Your task to perform on an android device: What is the recent news? Image 0: 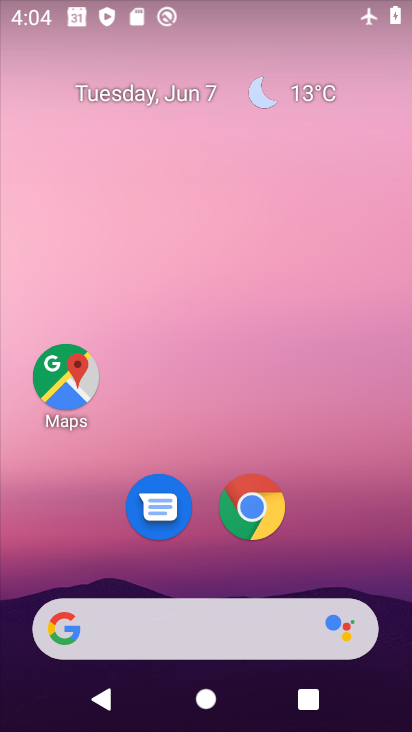
Step 0: drag from (339, 496) to (247, 9)
Your task to perform on an android device: What is the recent news? Image 1: 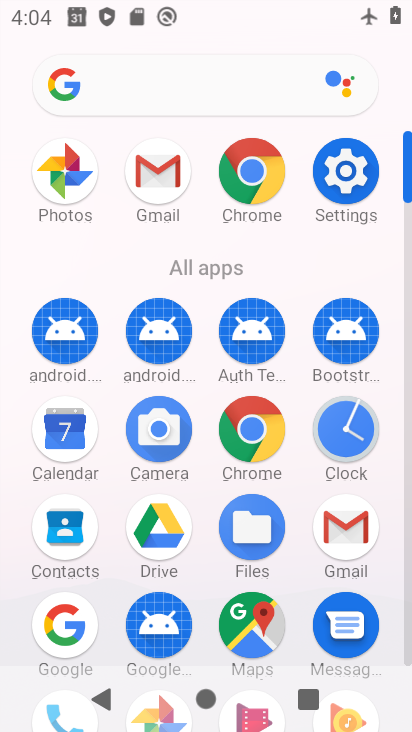
Step 1: drag from (4, 567) to (14, 279)
Your task to perform on an android device: What is the recent news? Image 2: 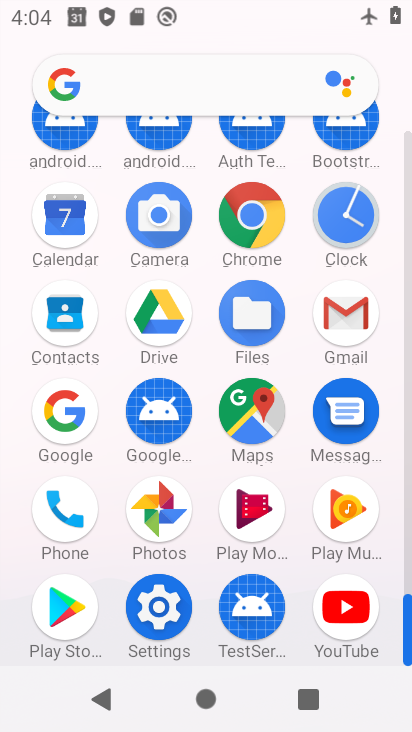
Step 2: click (251, 208)
Your task to perform on an android device: What is the recent news? Image 3: 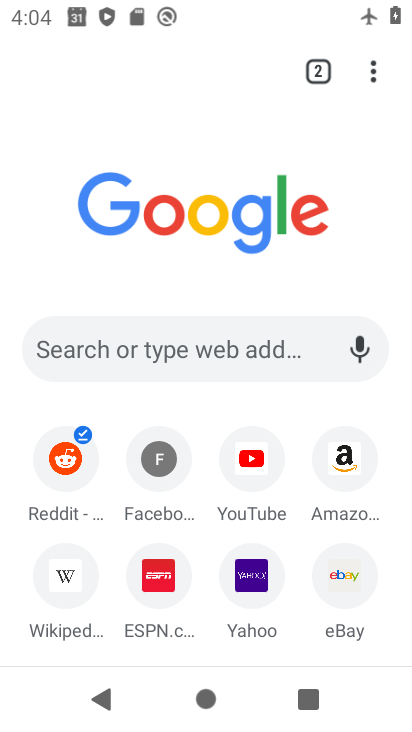
Step 3: click (109, 339)
Your task to perform on an android device: What is the recent news? Image 4: 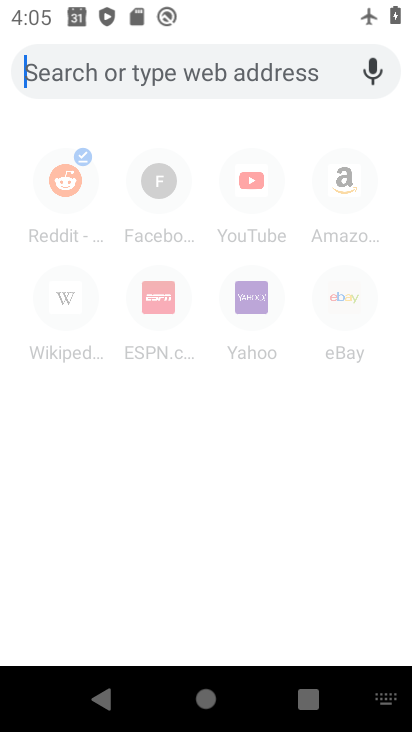
Step 4: type "What is the recent news?"
Your task to perform on an android device: What is the recent news? Image 5: 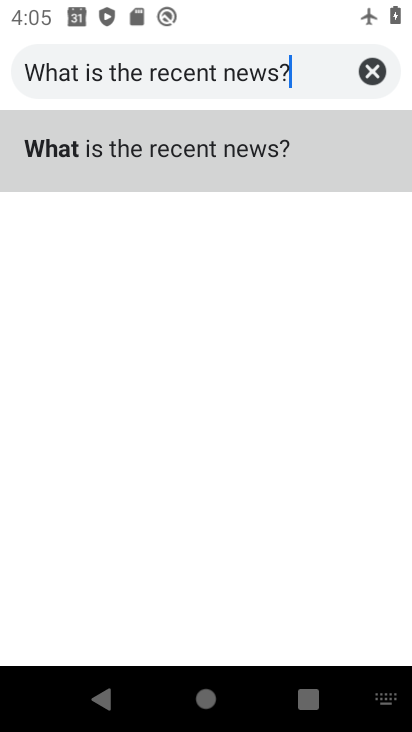
Step 5: click (128, 140)
Your task to perform on an android device: What is the recent news? Image 6: 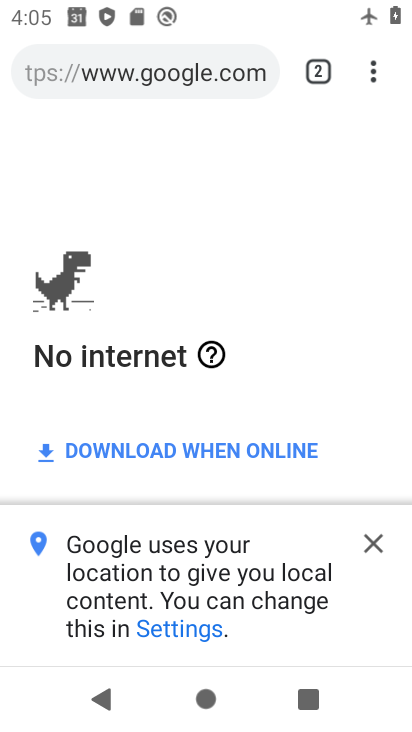
Step 6: task complete